Your task to perform on an android device: turn notification dots off Image 0: 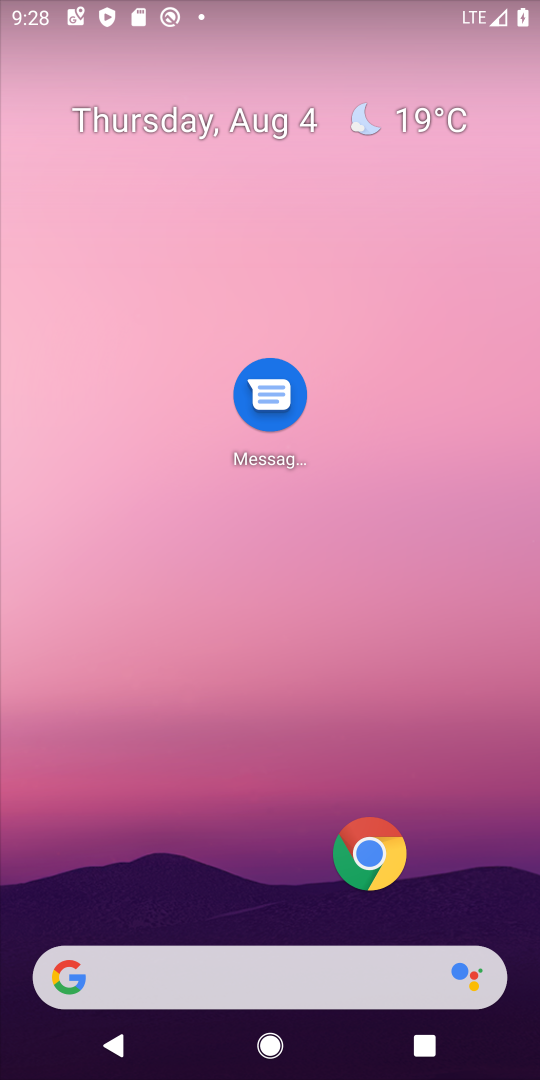
Step 0: drag from (210, 759) to (201, 340)
Your task to perform on an android device: turn notification dots off Image 1: 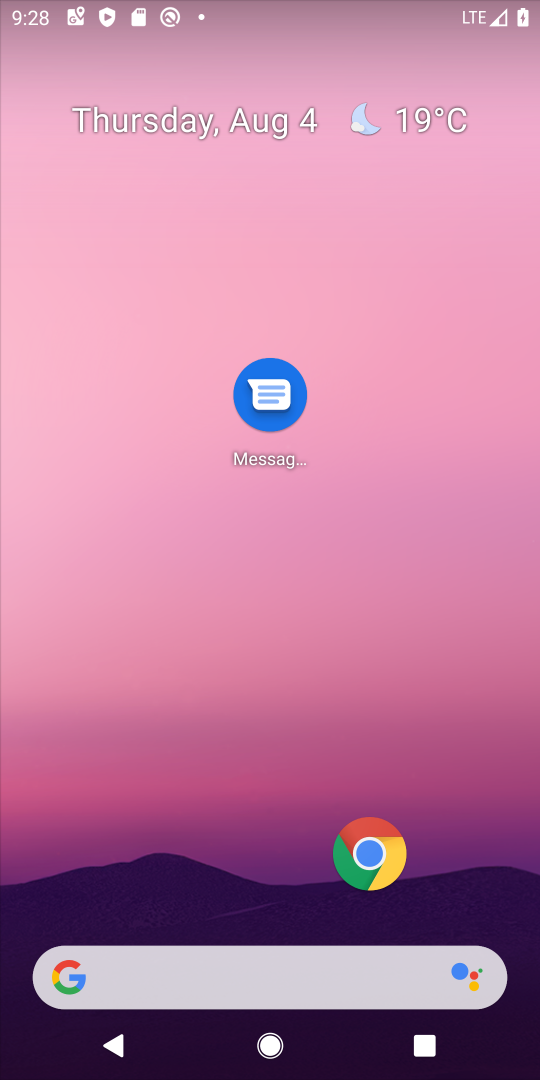
Step 1: drag from (297, 958) to (226, 261)
Your task to perform on an android device: turn notification dots off Image 2: 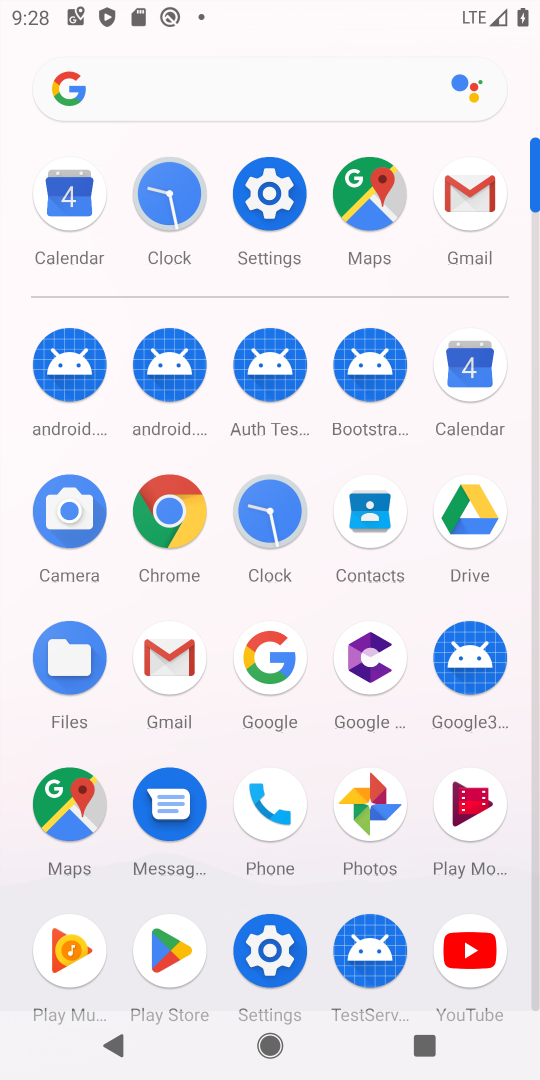
Step 2: click (282, 203)
Your task to perform on an android device: turn notification dots off Image 3: 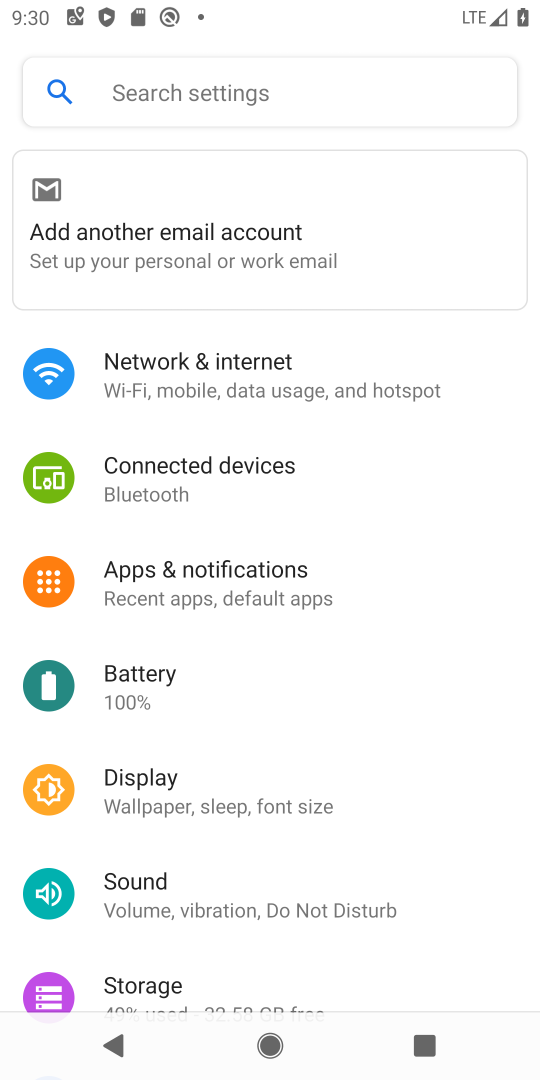
Step 3: click (248, 574)
Your task to perform on an android device: turn notification dots off Image 4: 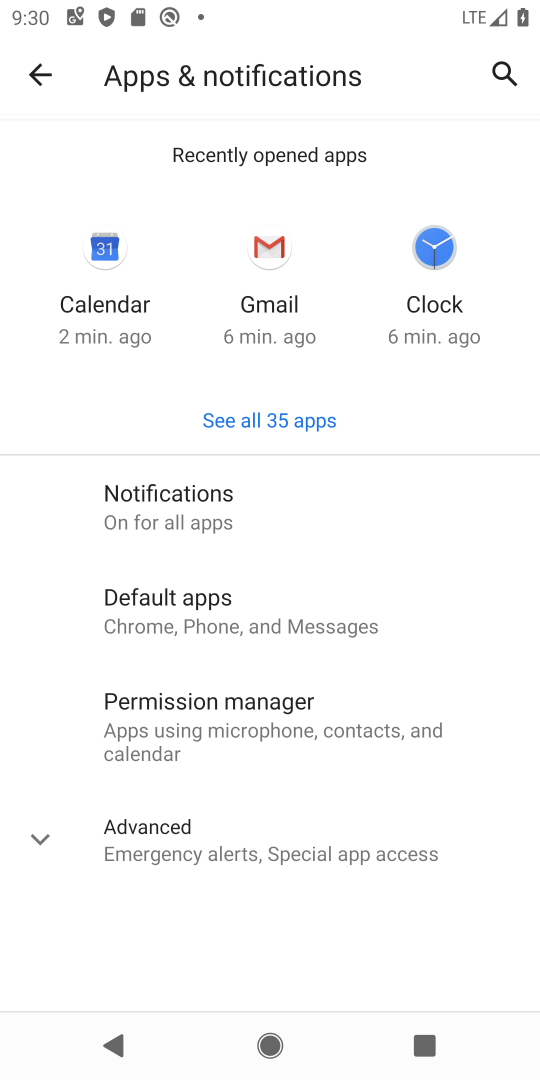
Step 4: click (170, 840)
Your task to perform on an android device: turn notification dots off Image 5: 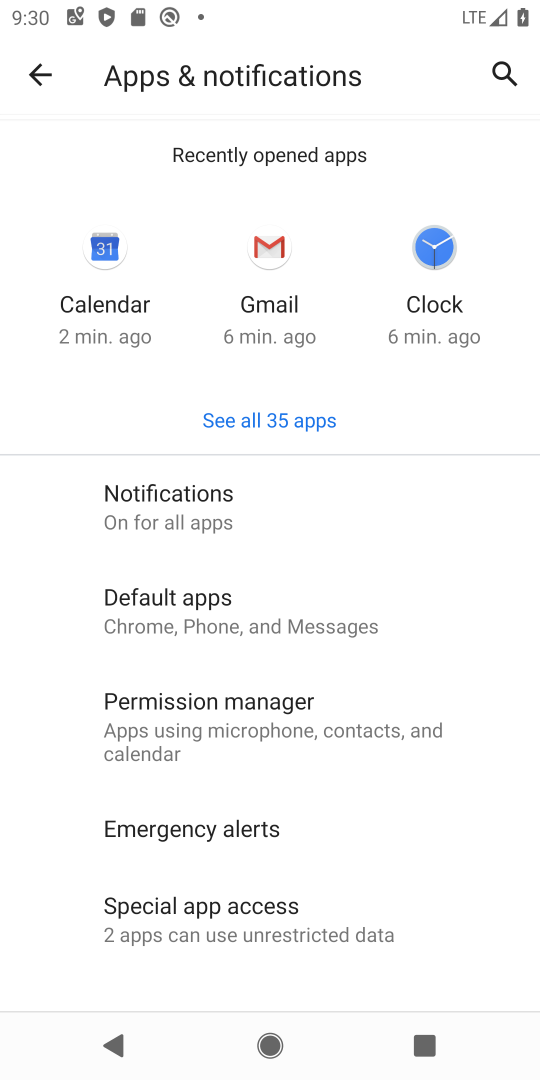
Step 5: drag from (356, 807) to (356, 264)
Your task to perform on an android device: turn notification dots off Image 6: 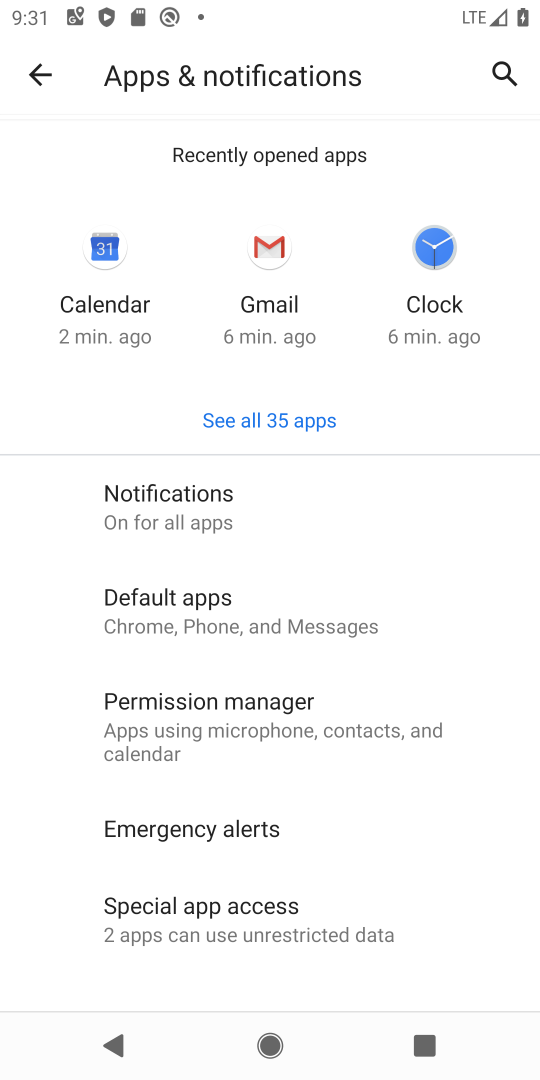
Step 6: click (213, 510)
Your task to perform on an android device: turn notification dots off Image 7: 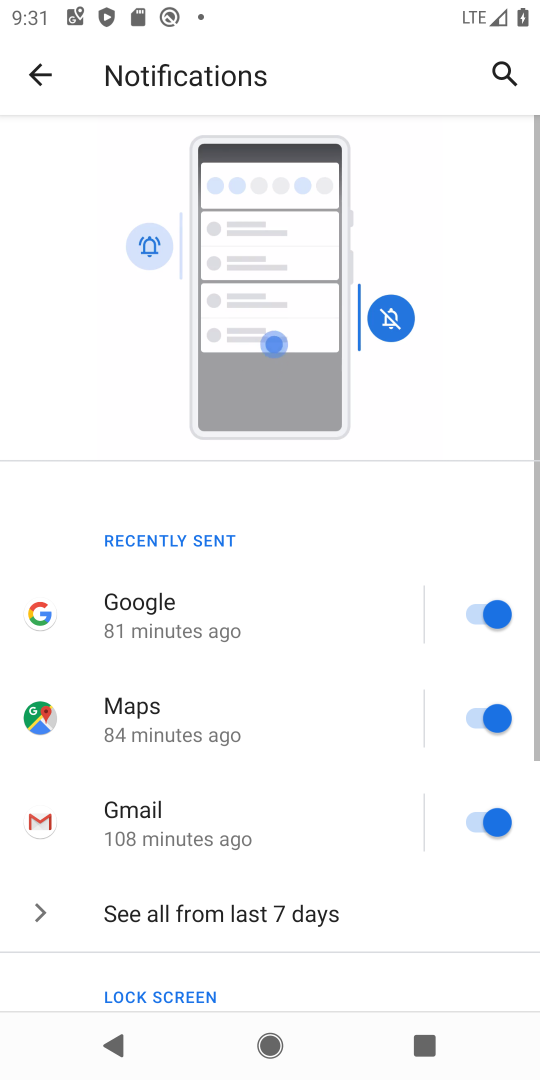
Step 7: drag from (201, 720) to (201, 290)
Your task to perform on an android device: turn notification dots off Image 8: 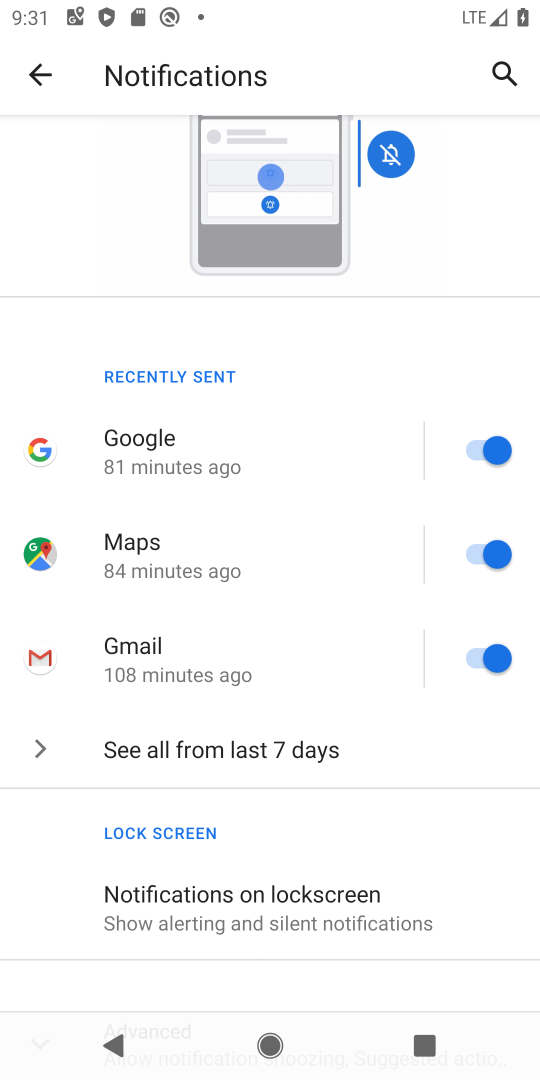
Step 8: drag from (200, 931) to (188, 447)
Your task to perform on an android device: turn notification dots off Image 9: 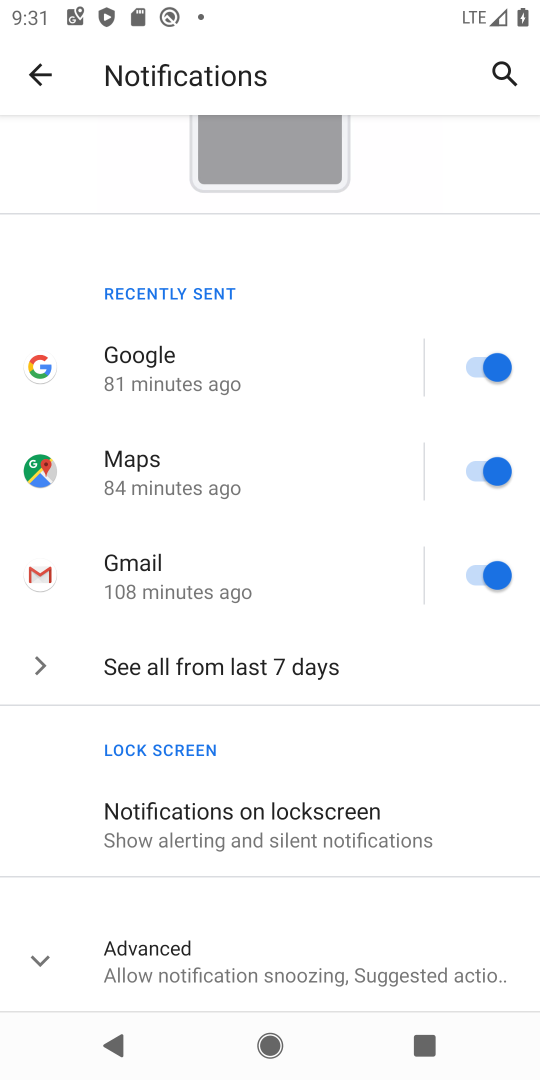
Step 9: click (200, 959)
Your task to perform on an android device: turn notification dots off Image 10: 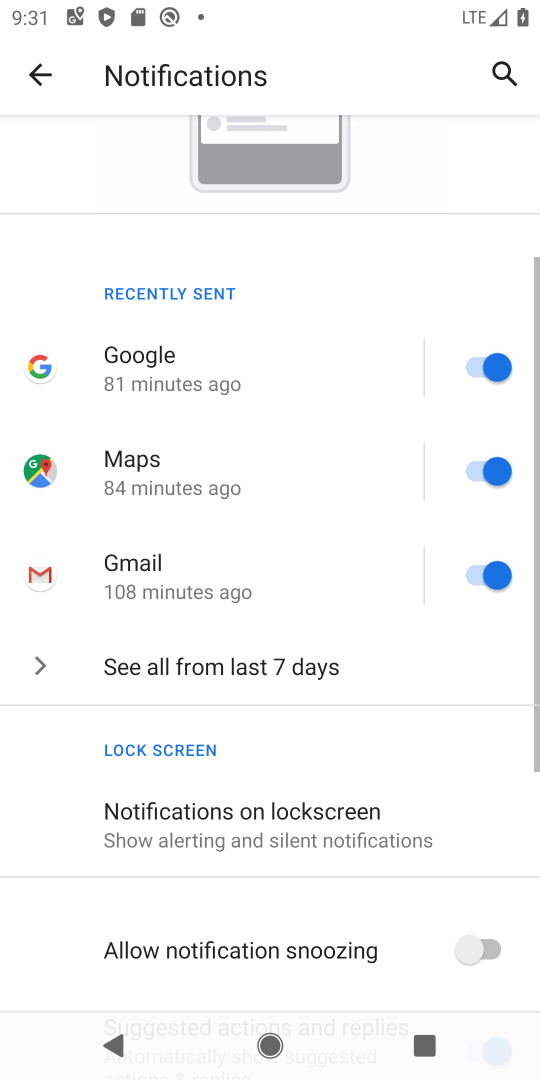
Step 10: task complete